Your task to perform on an android device: turn off javascript in the chrome app Image 0: 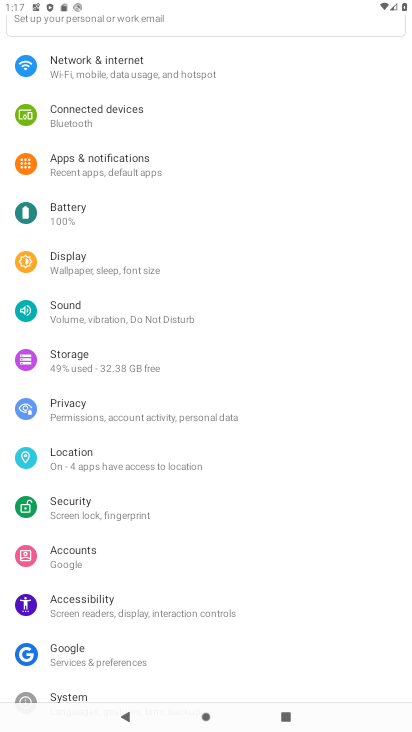
Step 0: press home button
Your task to perform on an android device: turn off javascript in the chrome app Image 1: 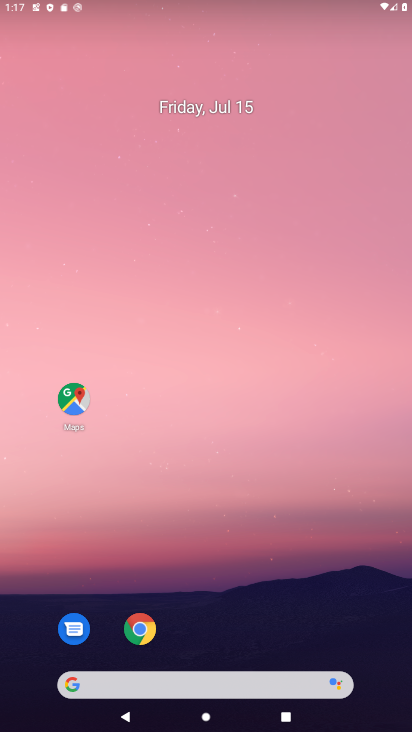
Step 1: drag from (293, 601) to (269, 25)
Your task to perform on an android device: turn off javascript in the chrome app Image 2: 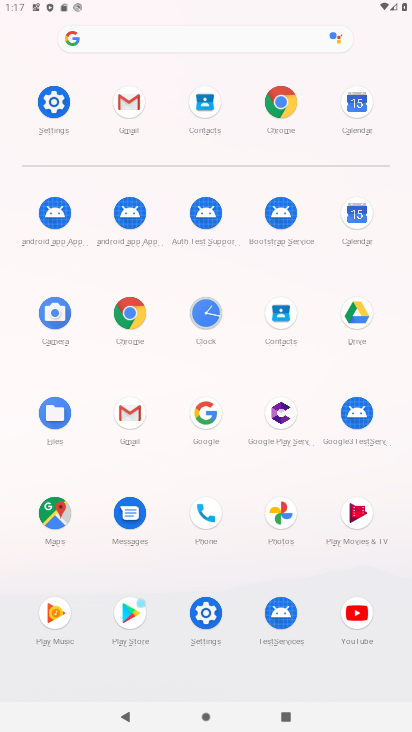
Step 2: click (277, 105)
Your task to perform on an android device: turn off javascript in the chrome app Image 3: 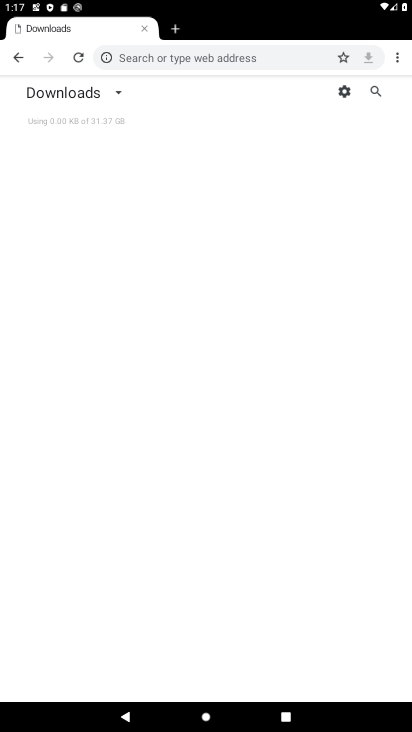
Step 3: drag from (389, 61) to (288, 296)
Your task to perform on an android device: turn off javascript in the chrome app Image 4: 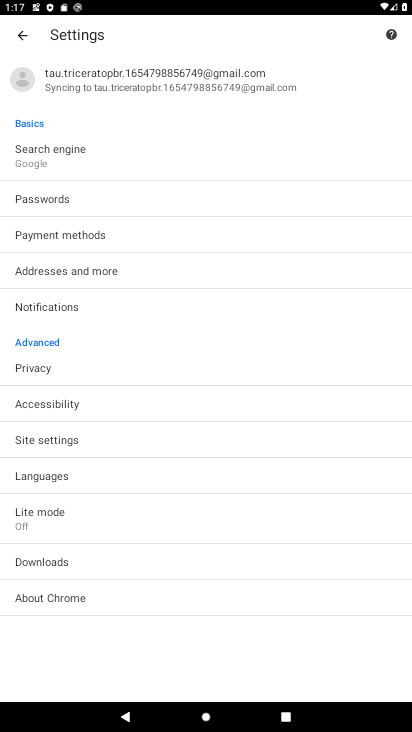
Step 4: click (68, 441)
Your task to perform on an android device: turn off javascript in the chrome app Image 5: 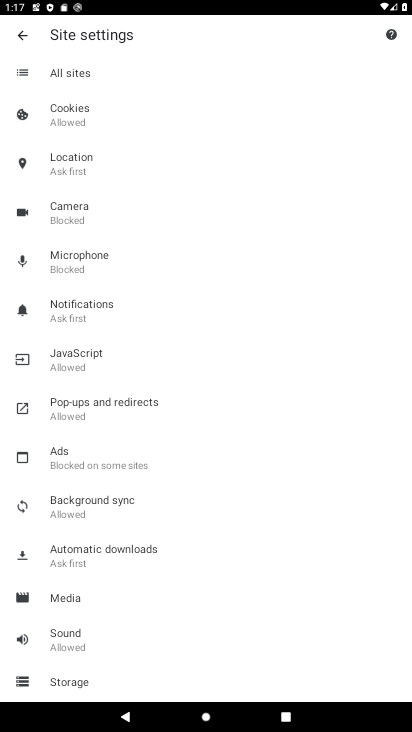
Step 5: click (65, 358)
Your task to perform on an android device: turn off javascript in the chrome app Image 6: 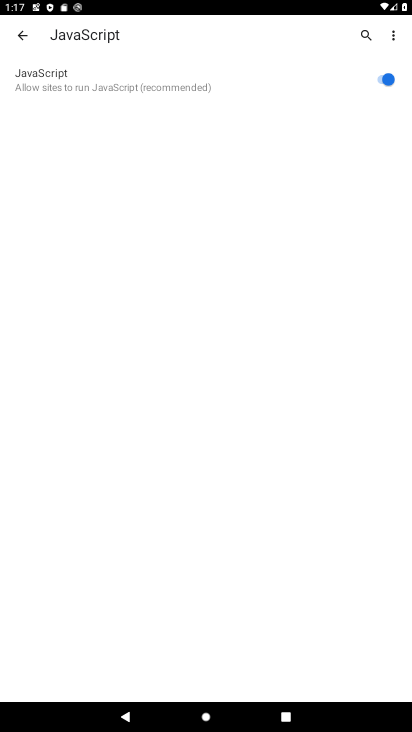
Step 6: click (380, 77)
Your task to perform on an android device: turn off javascript in the chrome app Image 7: 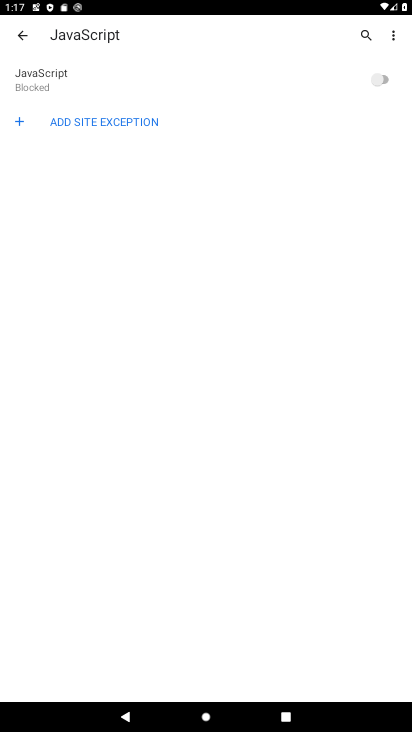
Step 7: task complete